Your task to perform on an android device: turn notification dots off Image 0: 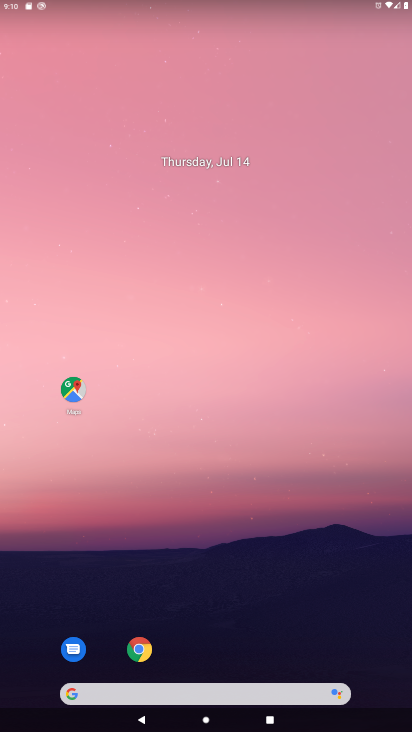
Step 0: click (271, 8)
Your task to perform on an android device: turn notification dots off Image 1: 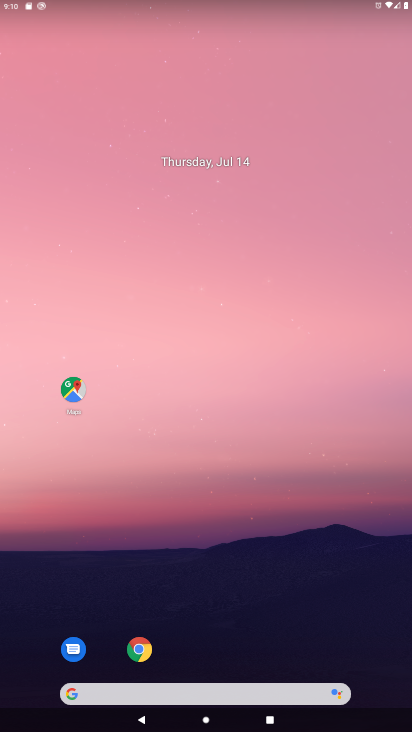
Step 1: drag from (246, 659) to (280, 168)
Your task to perform on an android device: turn notification dots off Image 2: 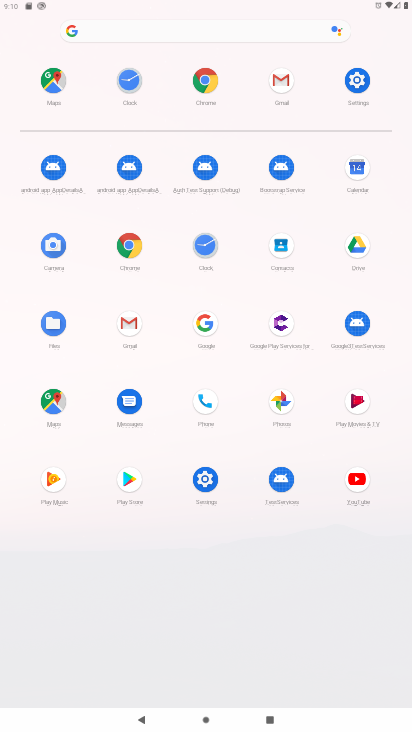
Step 2: click (206, 497)
Your task to perform on an android device: turn notification dots off Image 3: 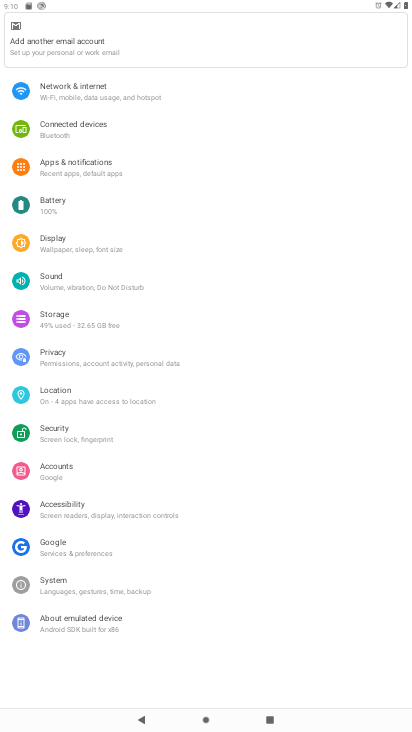
Step 3: click (73, 174)
Your task to perform on an android device: turn notification dots off Image 4: 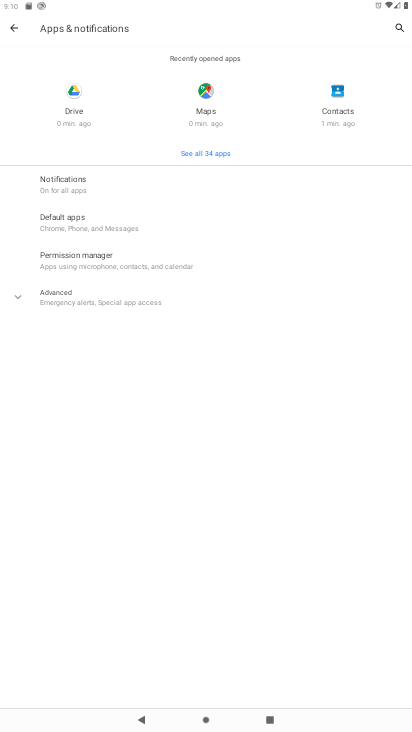
Step 4: click (72, 180)
Your task to perform on an android device: turn notification dots off Image 5: 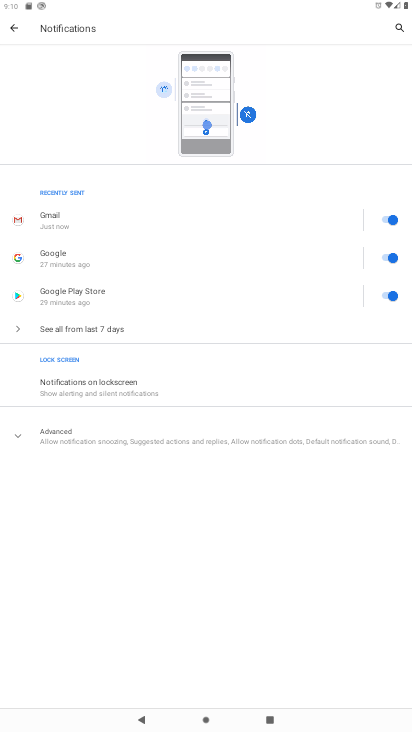
Step 5: click (108, 443)
Your task to perform on an android device: turn notification dots off Image 6: 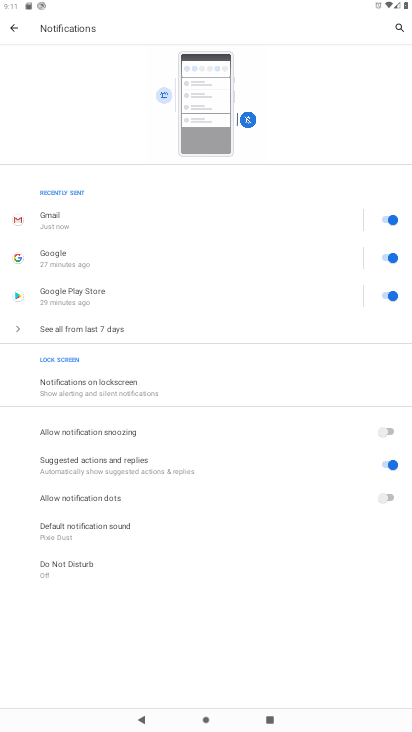
Step 6: task complete